Your task to perform on an android device: delete a single message in the gmail app Image 0: 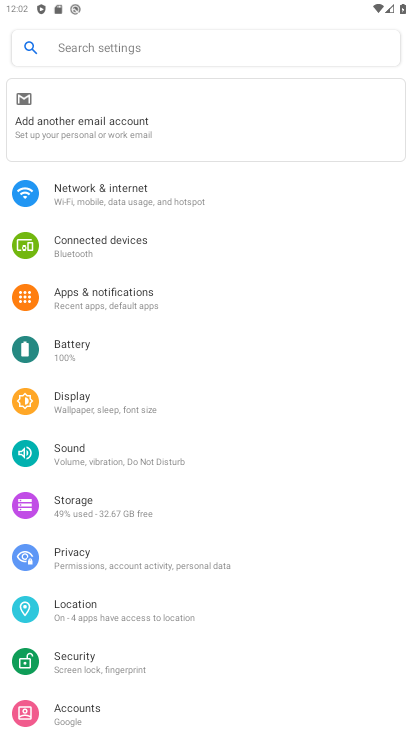
Step 0: press home button
Your task to perform on an android device: delete a single message in the gmail app Image 1: 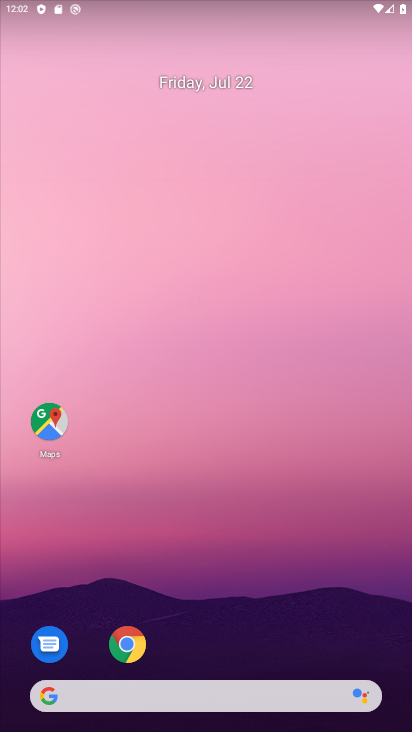
Step 1: drag from (218, 669) to (247, 239)
Your task to perform on an android device: delete a single message in the gmail app Image 2: 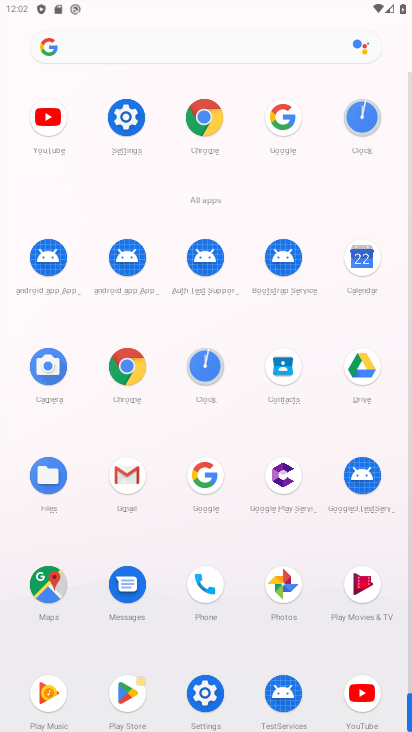
Step 2: click (128, 492)
Your task to perform on an android device: delete a single message in the gmail app Image 3: 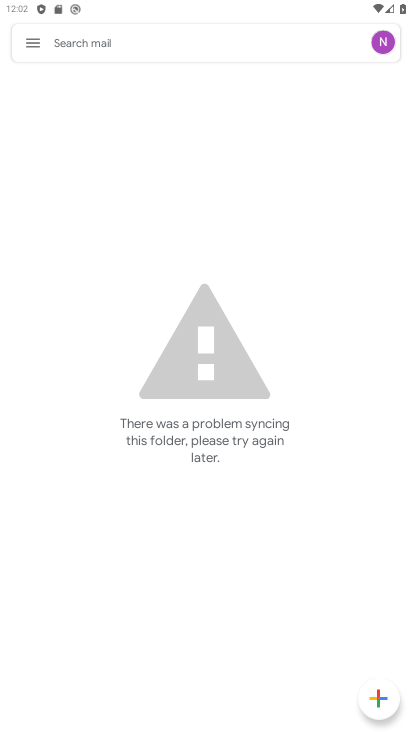
Step 3: click (34, 51)
Your task to perform on an android device: delete a single message in the gmail app Image 4: 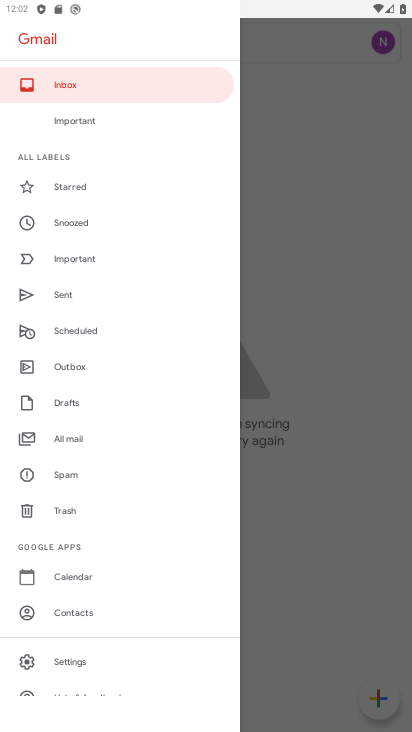
Step 4: drag from (90, 591) to (117, 216)
Your task to perform on an android device: delete a single message in the gmail app Image 5: 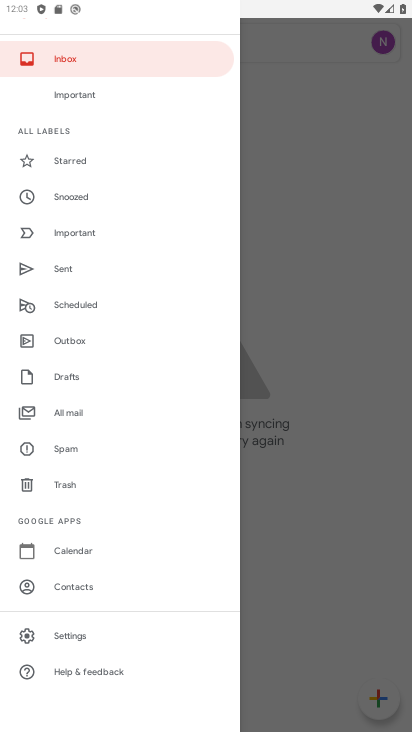
Step 5: click (63, 419)
Your task to perform on an android device: delete a single message in the gmail app Image 6: 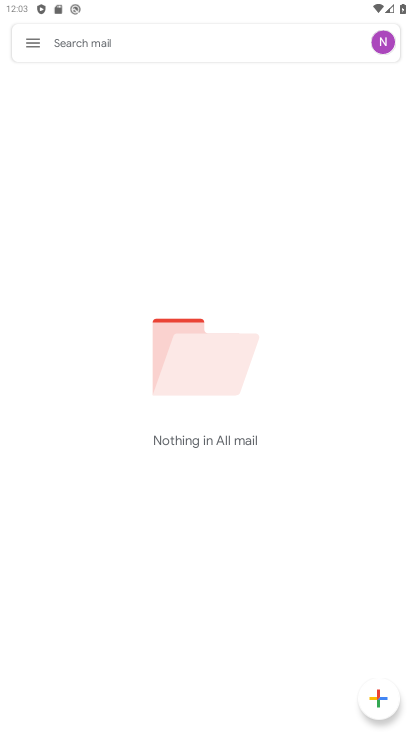
Step 6: click (32, 46)
Your task to perform on an android device: delete a single message in the gmail app Image 7: 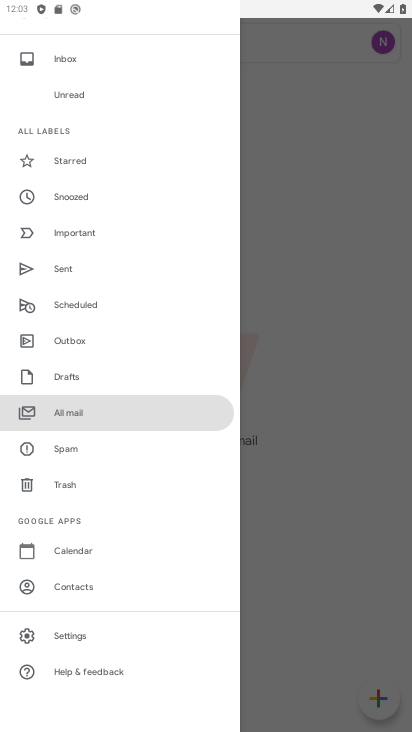
Step 7: click (94, 420)
Your task to perform on an android device: delete a single message in the gmail app Image 8: 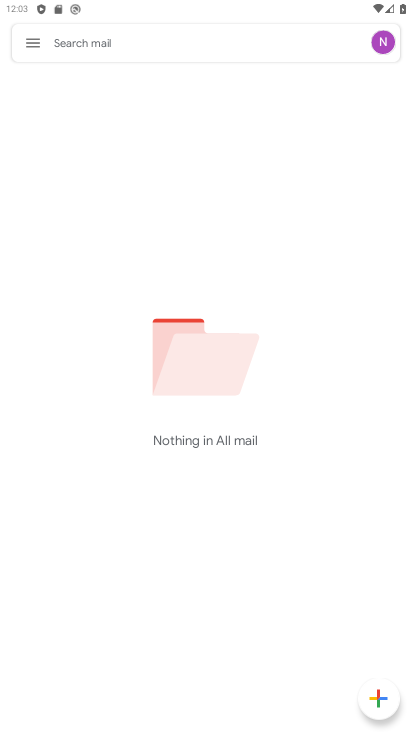
Step 8: task complete